Your task to perform on an android device: Go to sound settings Image 0: 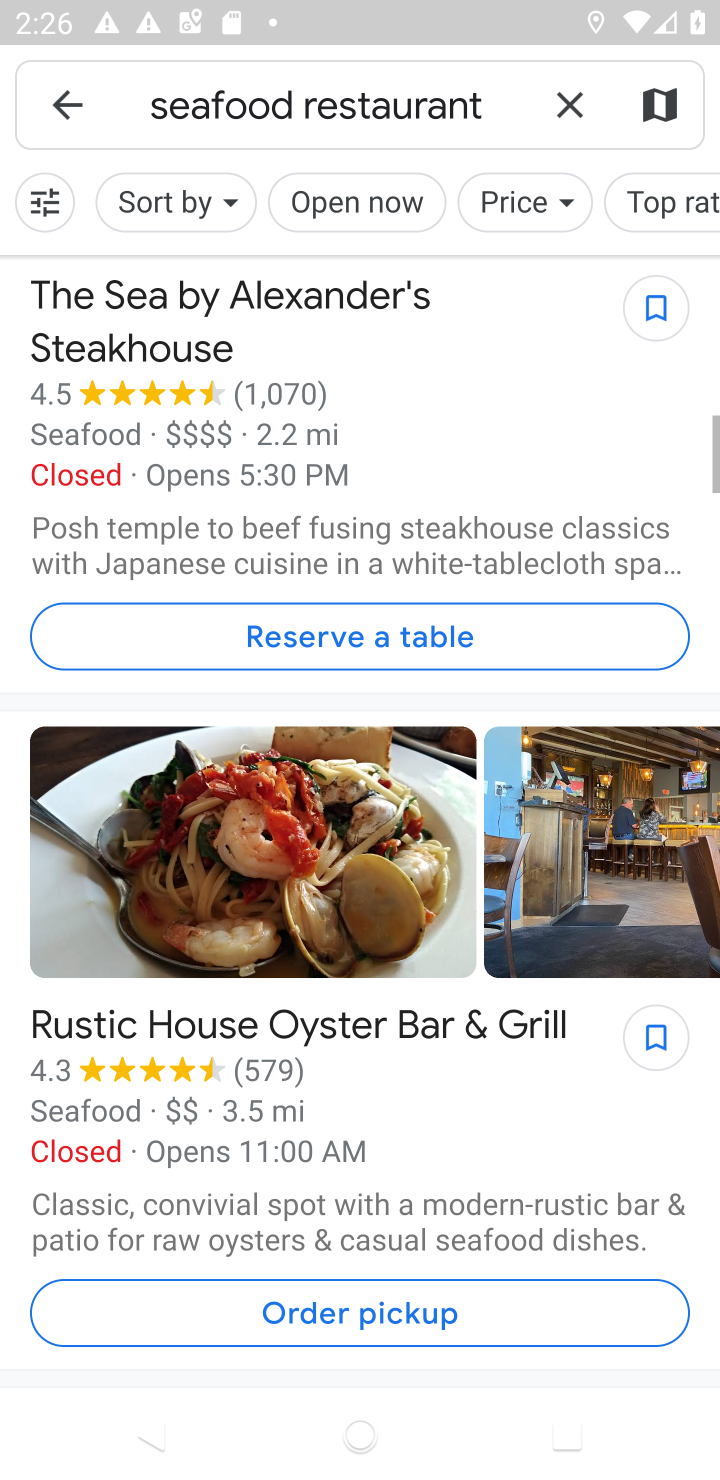
Step 0: press home button
Your task to perform on an android device: Go to sound settings Image 1: 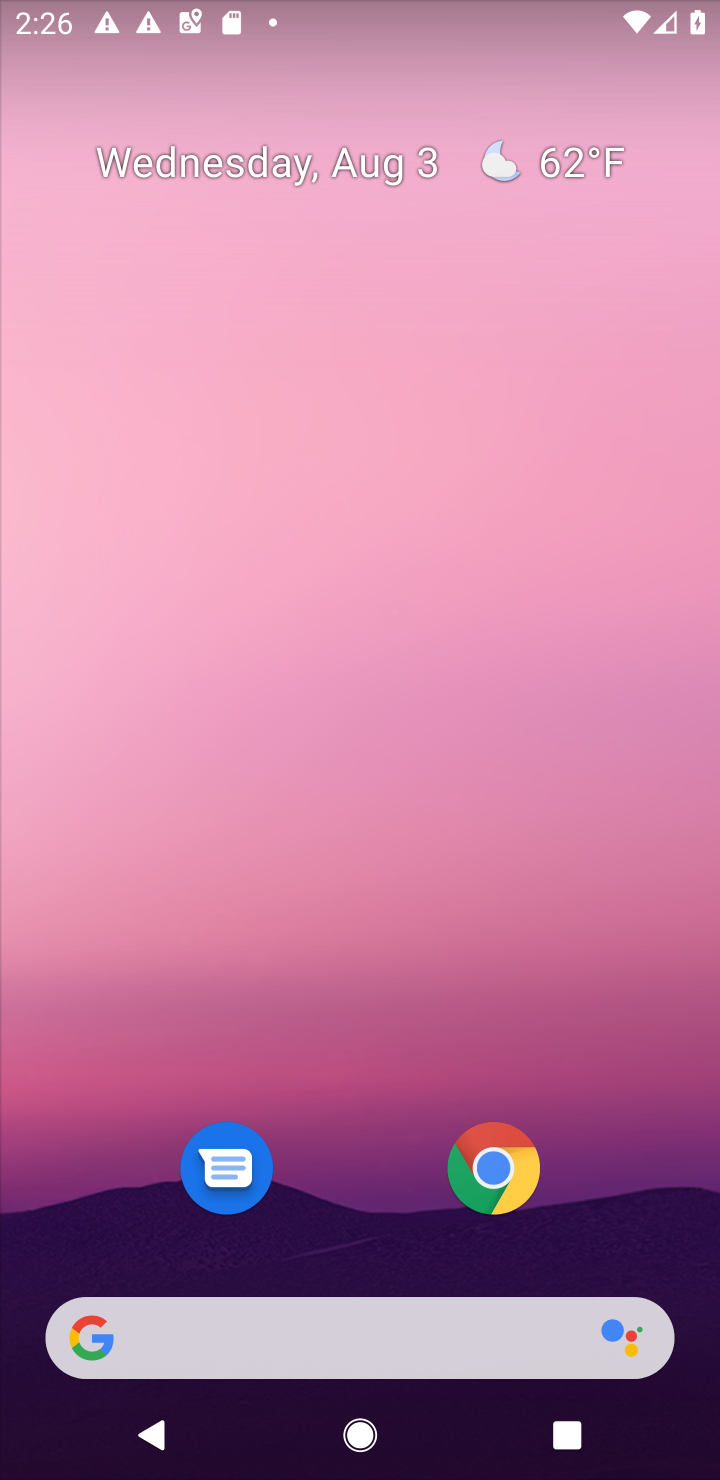
Step 1: drag from (672, 1253) to (556, 340)
Your task to perform on an android device: Go to sound settings Image 2: 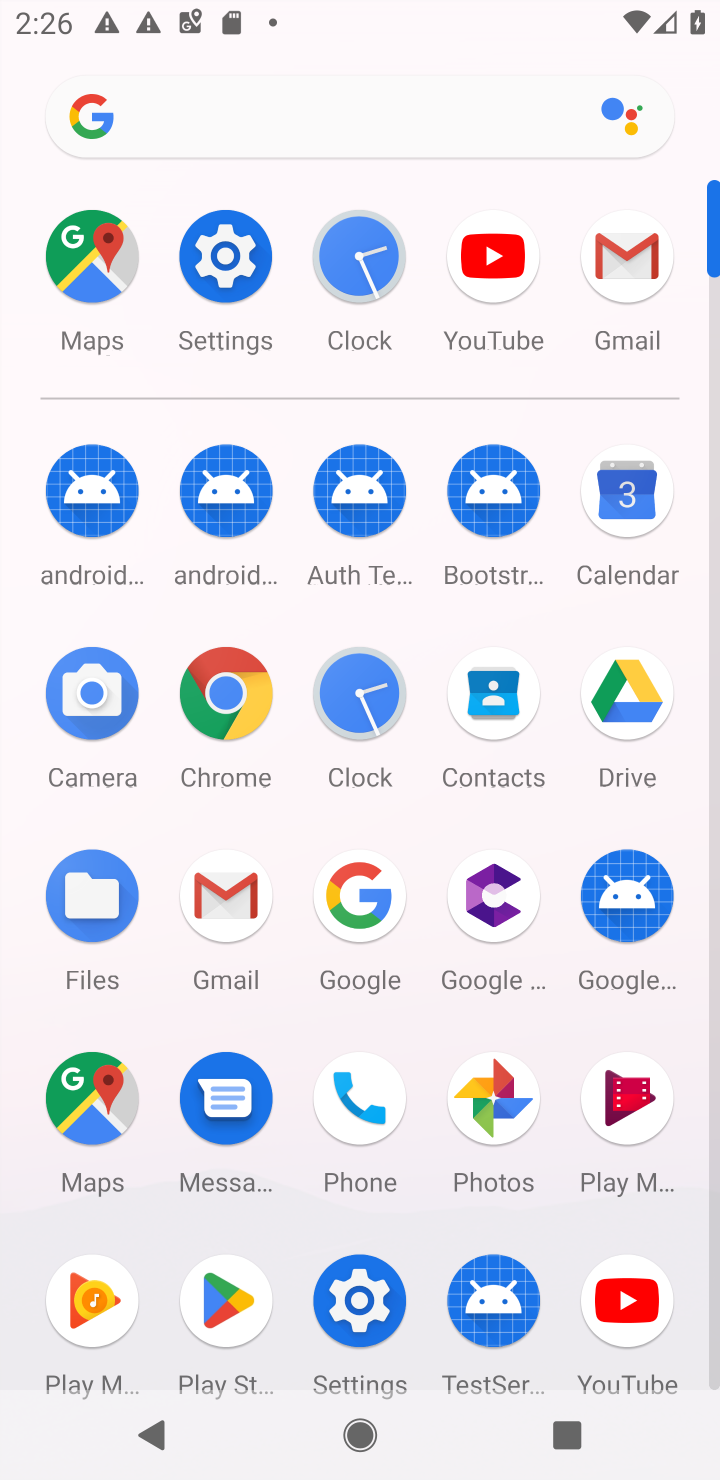
Step 2: click (358, 1303)
Your task to perform on an android device: Go to sound settings Image 3: 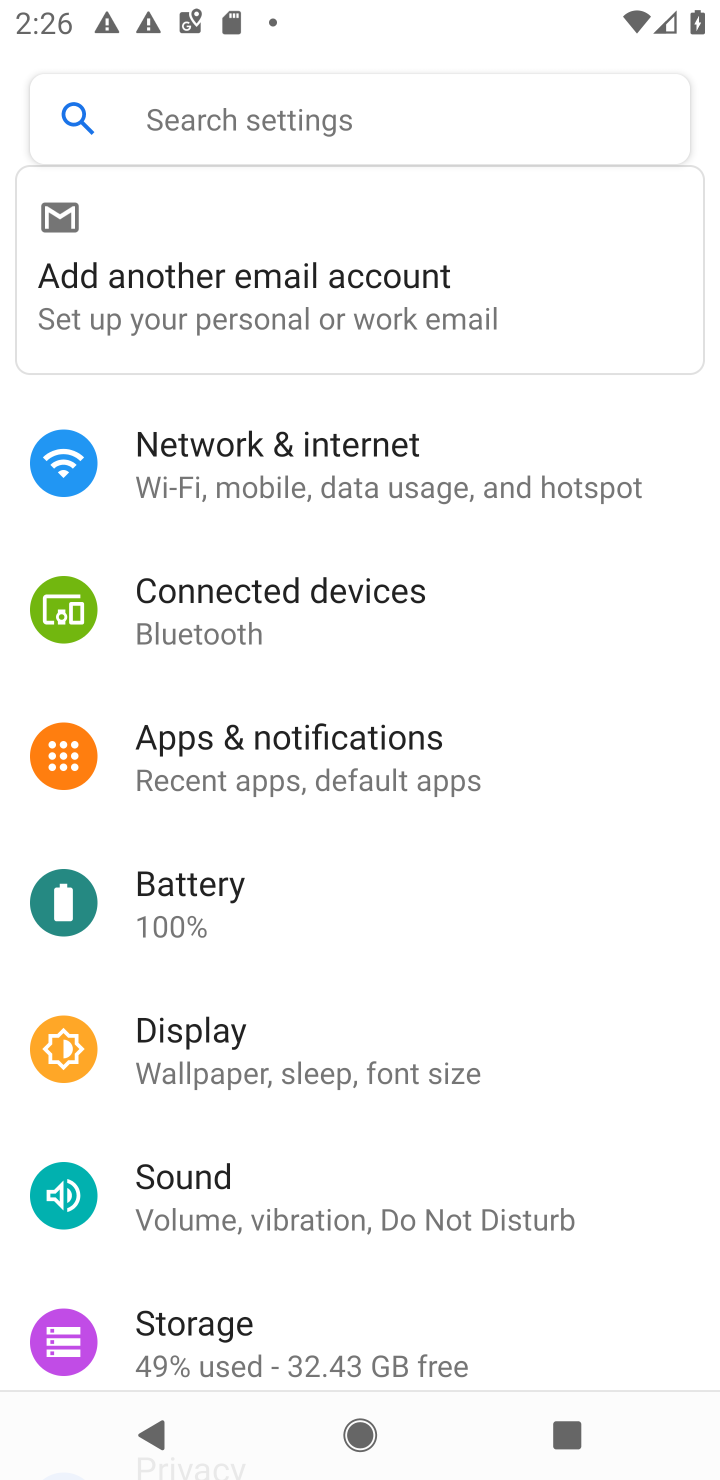
Step 3: click (176, 1161)
Your task to perform on an android device: Go to sound settings Image 4: 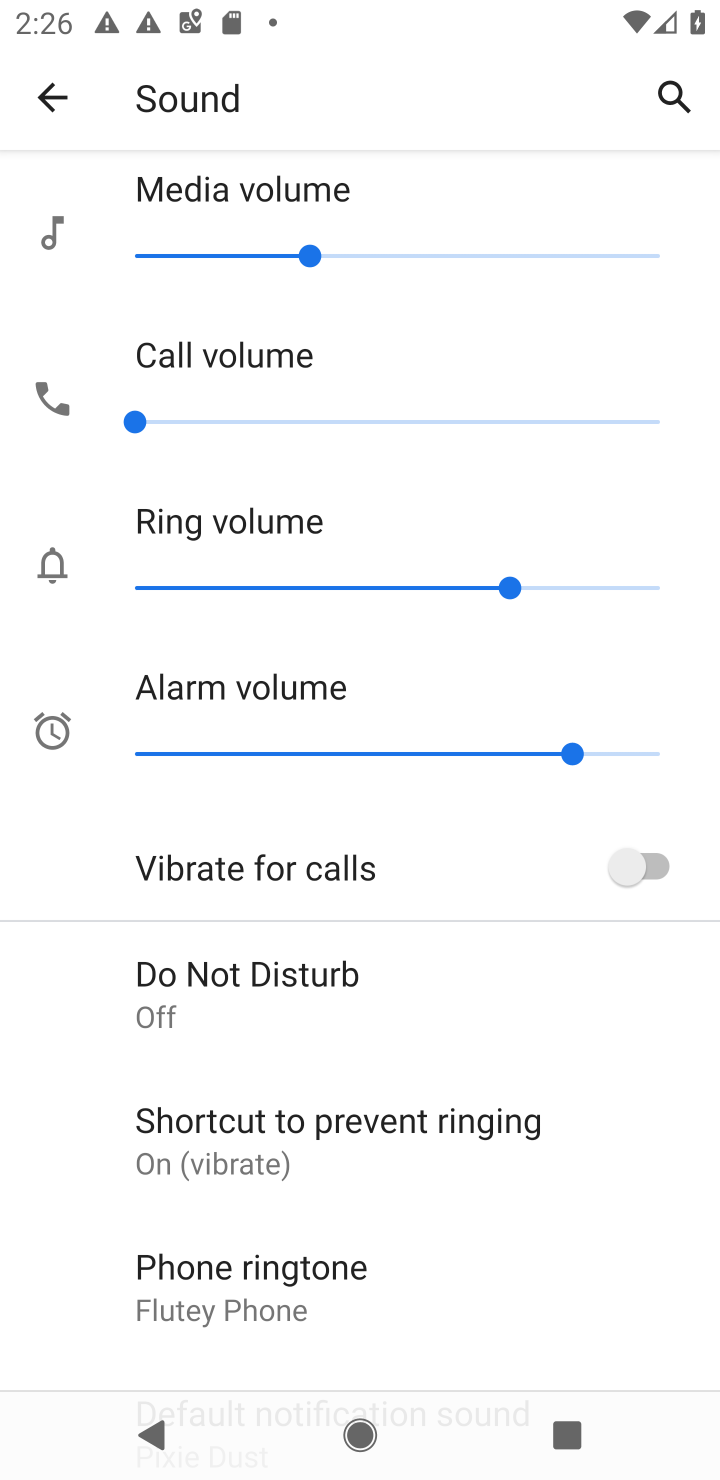
Step 4: drag from (591, 1248) to (553, 441)
Your task to perform on an android device: Go to sound settings Image 5: 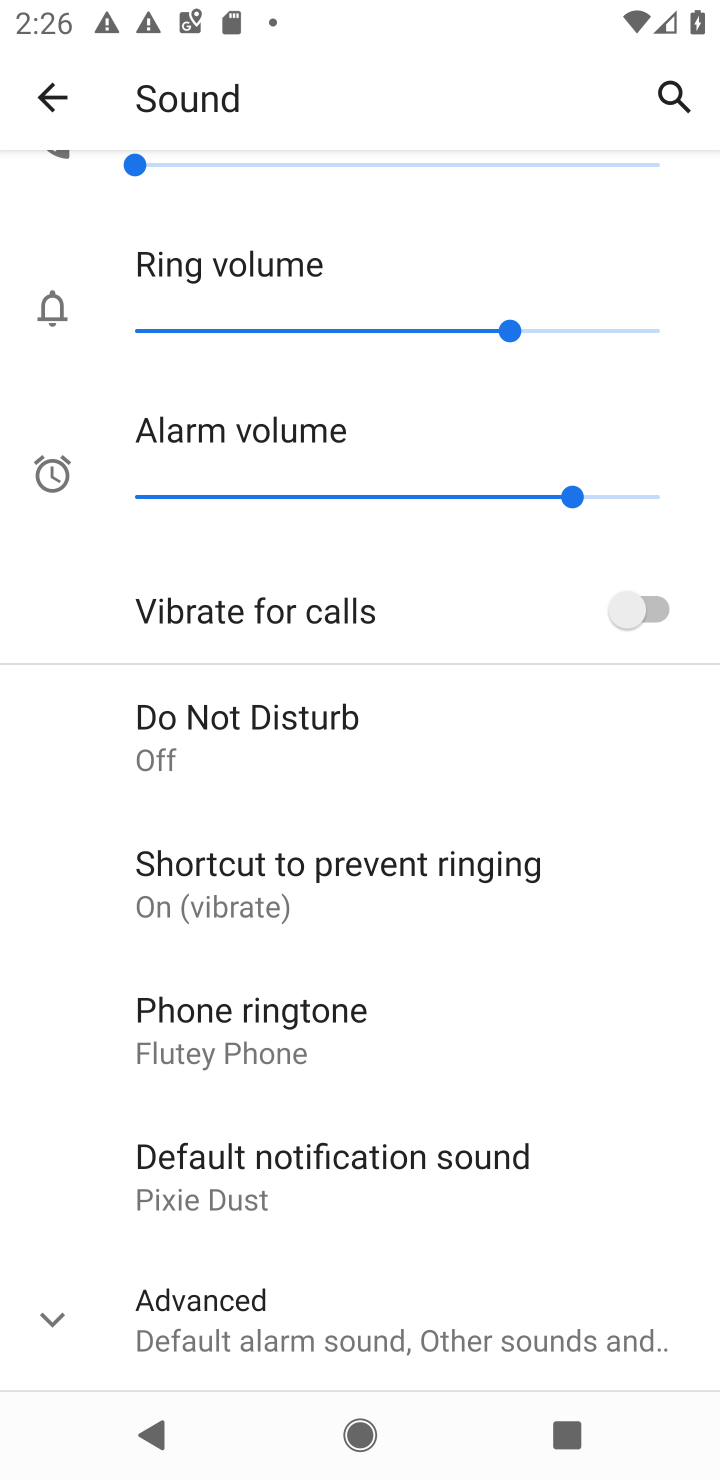
Step 5: click (44, 1320)
Your task to perform on an android device: Go to sound settings Image 6: 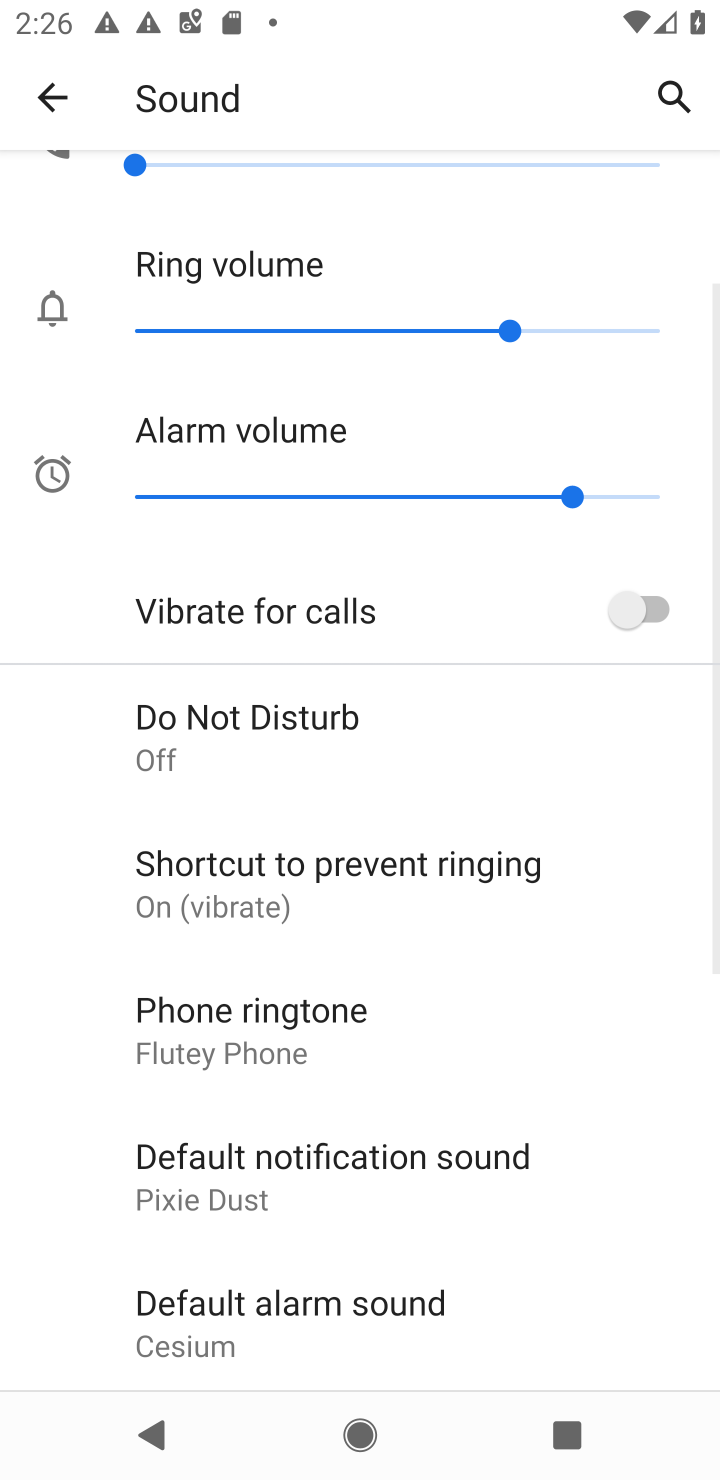
Step 6: task complete